Your task to perform on an android device: toggle airplane mode Image 0: 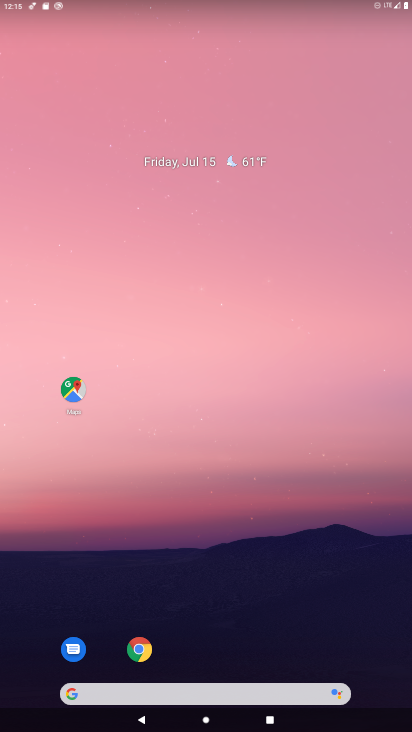
Step 0: drag from (234, 662) to (250, 7)
Your task to perform on an android device: toggle airplane mode Image 1: 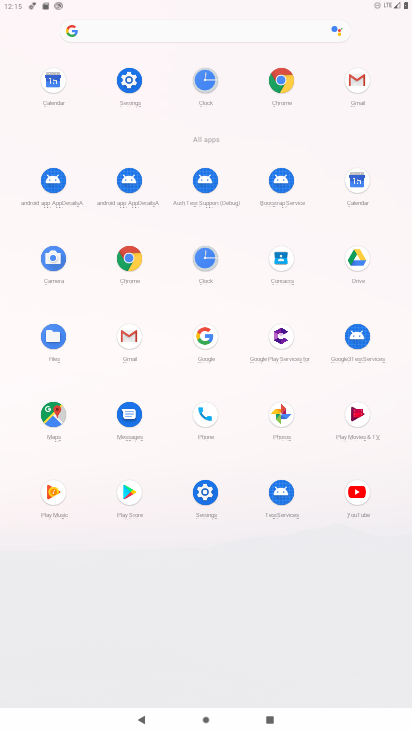
Step 1: click (117, 87)
Your task to perform on an android device: toggle airplane mode Image 2: 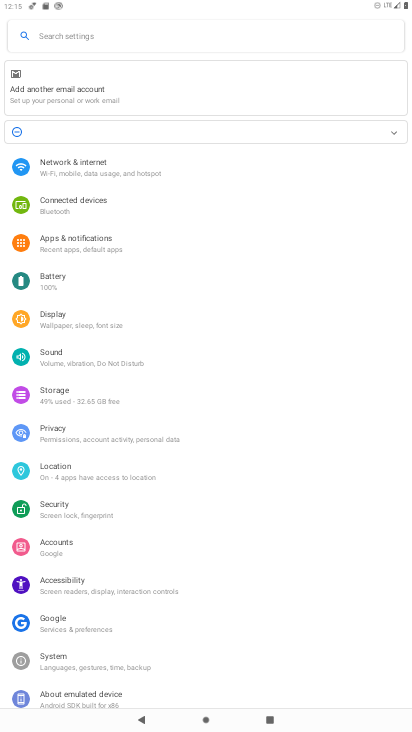
Step 2: click (101, 179)
Your task to perform on an android device: toggle airplane mode Image 3: 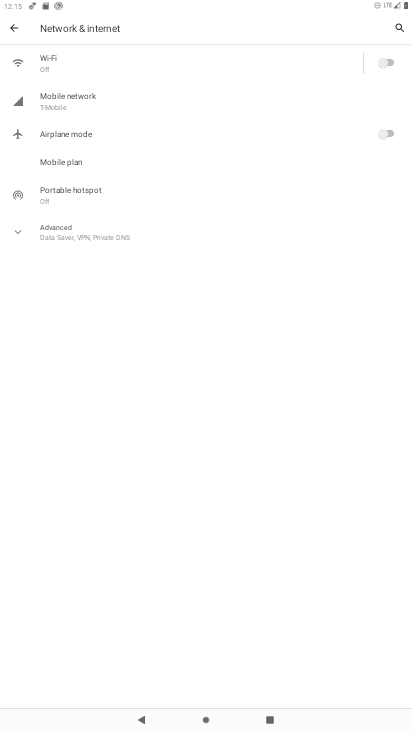
Step 3: click (385, 134)
Your task to perform on an android device: toggle airplane mode Image 4: 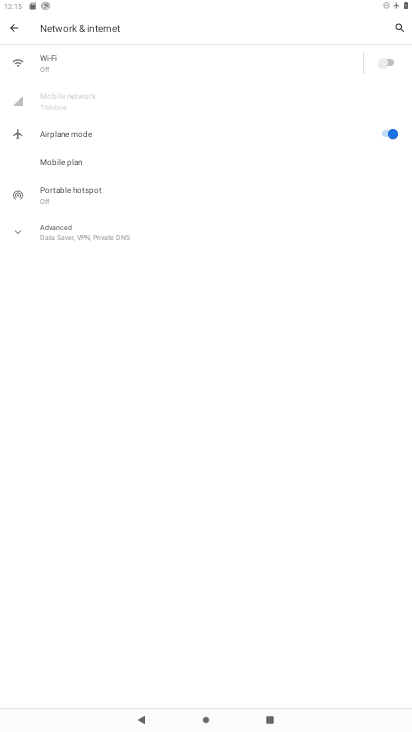
Step 4: task complete